Your task to perform on an android device: Search for Italian restaurants on Maps Image 0: 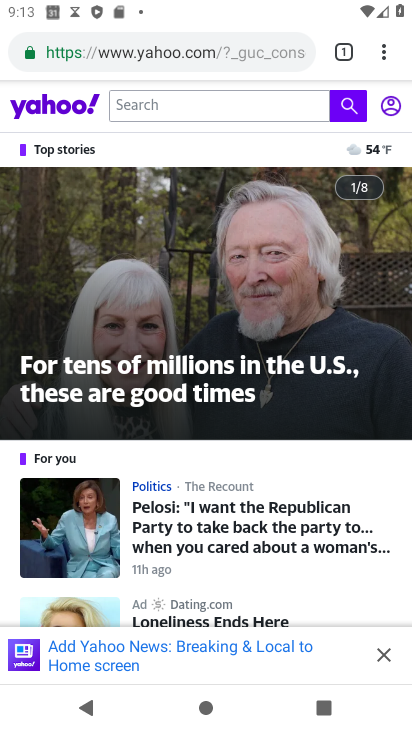
Step 0: press home button
Your task to perform on an android device: Search for Italian restaurants on Maps Image 1: 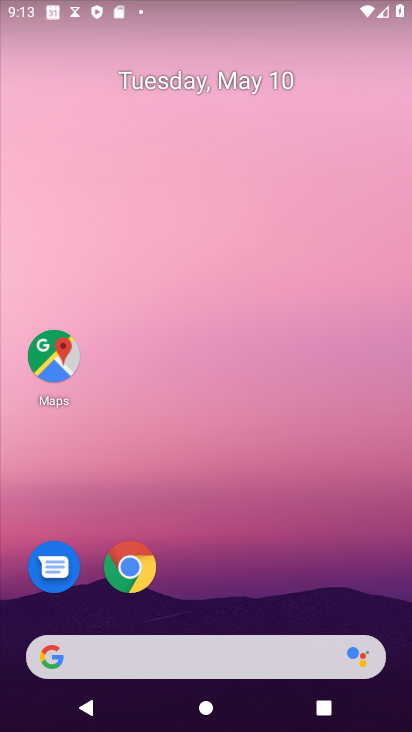
Step 1: click (61, 372)
Your task to perform on an android device: Search for Italian restaurants on Maps Image 2: 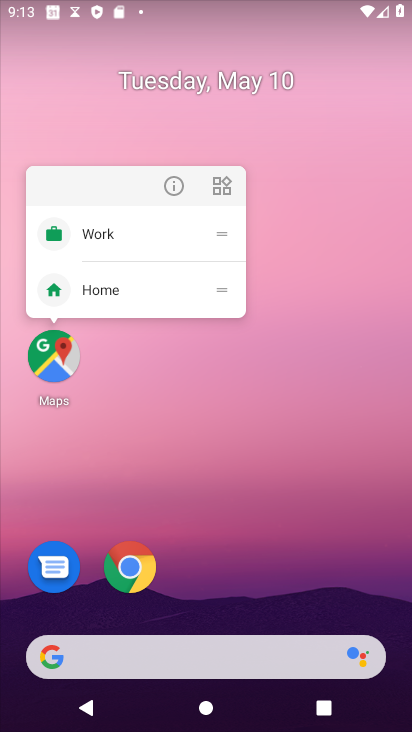
Step 2: click (179, 184)
Your task to perform on an android device: Search for Italian restaurants on Maps Image 3: 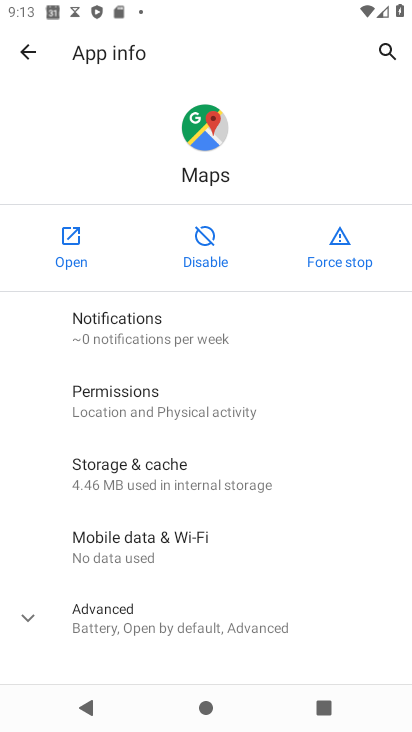
Step 3: click (66, 244)
Your task to perform on an android device: Search for Italian restaurants on Maps Image 4: 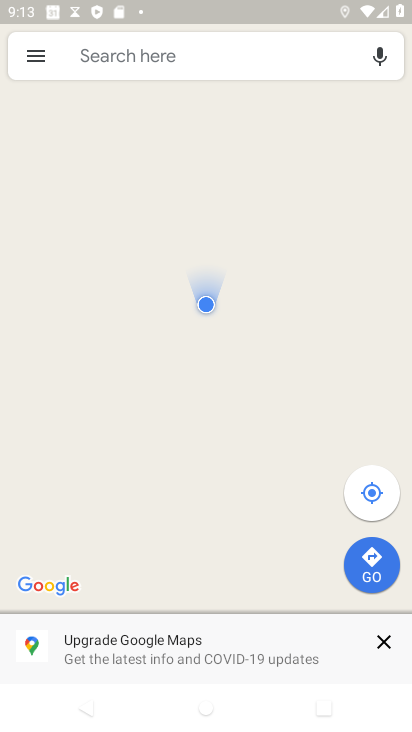
Step 4: click (168, 54)
Your task to perform on an android device: Search for Italian restaurants on Maps Image 5: 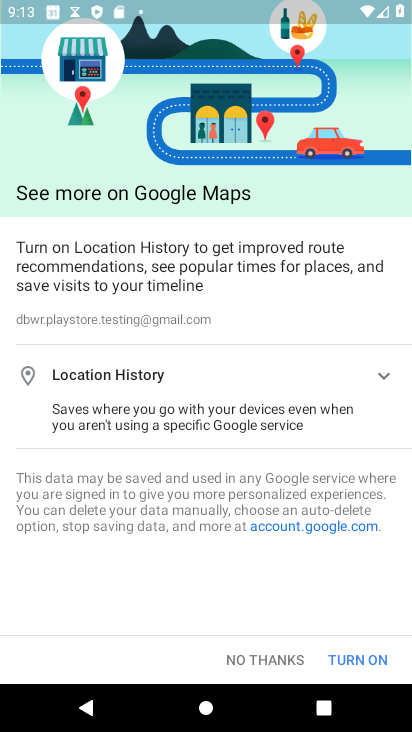
Step 5: click (273, 666)
Your task to perform on an android device: Search for Italian restaurants on Maps Image 6: 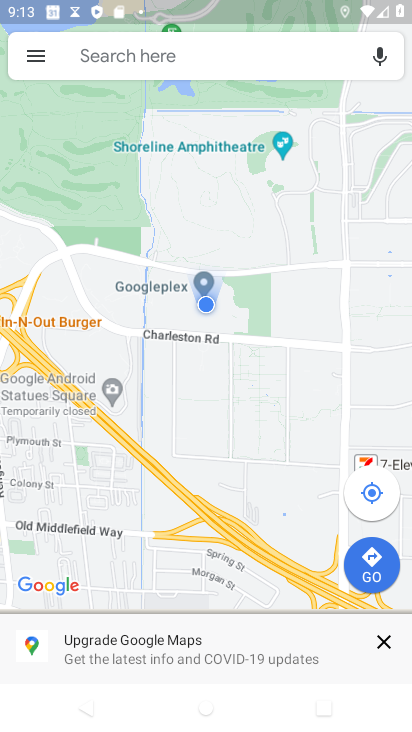
Step 6: click (227, 59)
Your task to perform on an android device: Search for Italian restaurants on Maps Image 7: 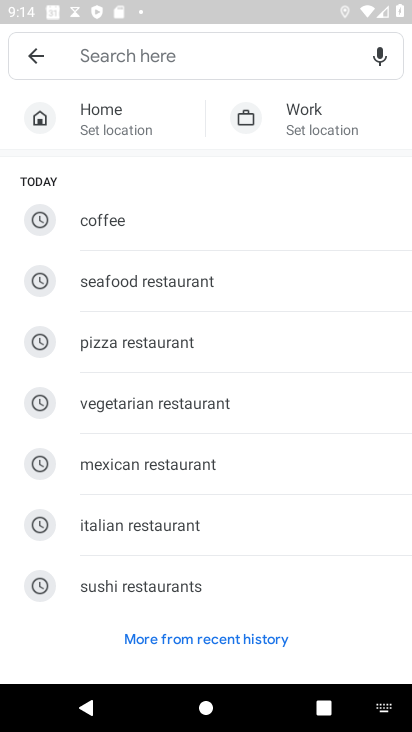
Step 7: click (128, 527)
Your task to perform on an android device: Search for Italian restaurants on Maps Image 8: 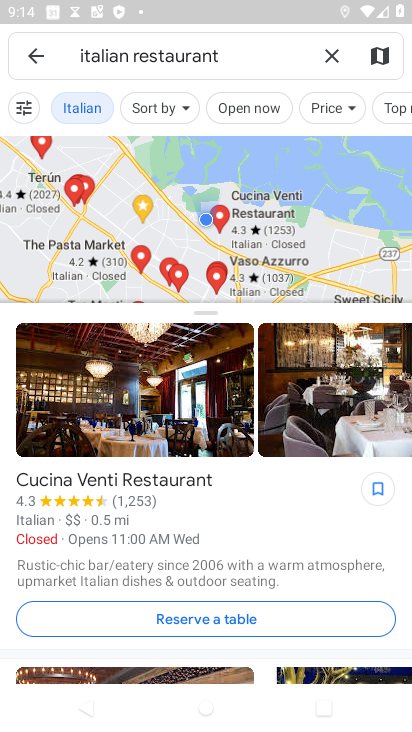
Step 8: task complete